Your task to perform on an android device: Open accessibility settings Image 0: 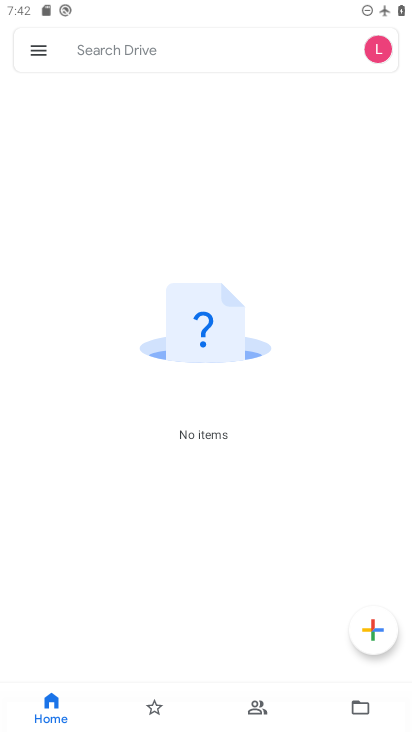
Step 0: press home button
Your task to perform on an android device: Open accessibility settings Image 1: 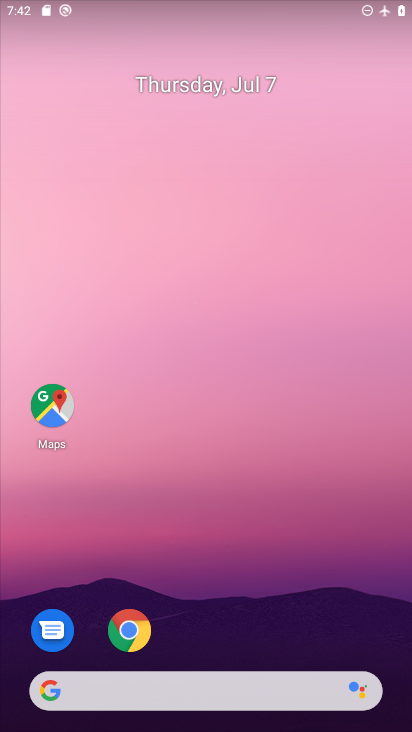
Step 1: drag from (266, 517) to (205, 83)
Your task to perform on an android device: Open accessibility settings Image 2: 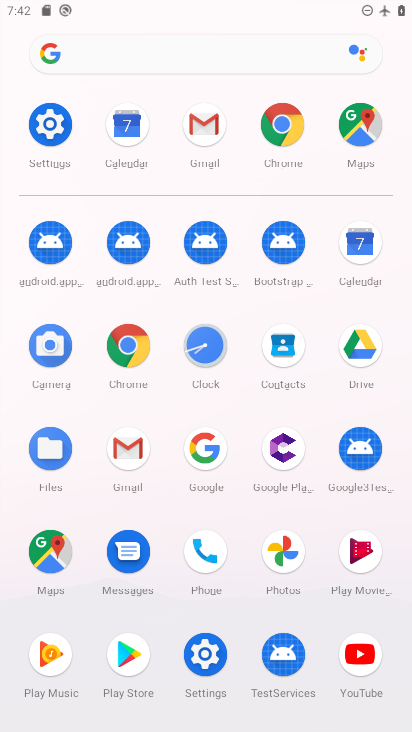
Step 2: click (47, 125)
Your task to perform on an android device: Open accessibility settings Image 3: 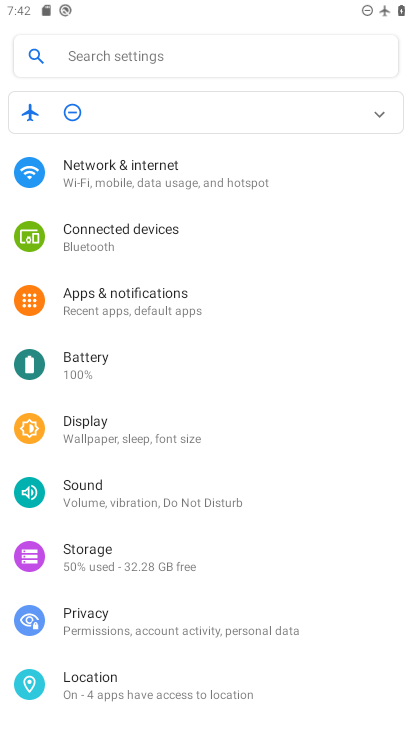
Step 3: drag from (256, 645) to (292, 292)
Your task to perform on an android device: Open accessibility settings Image 4: 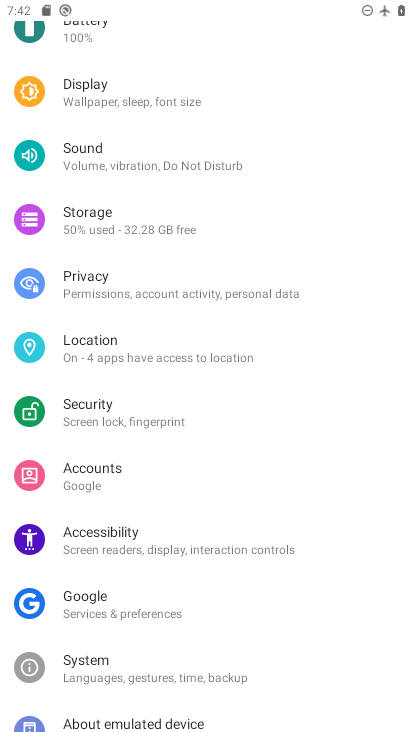
Step 4: click (82, 537)
Your task to perform on an android device: Open accessibility settings Image 5: 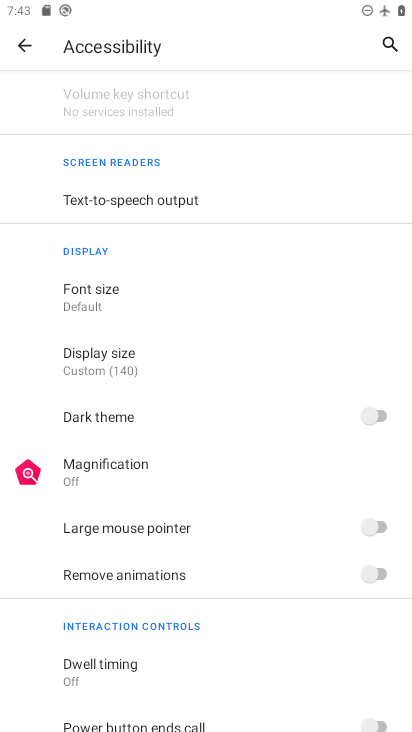
Step 5: task complete